Your task to perform on an android device: turn off improve location accuracy Image 0: 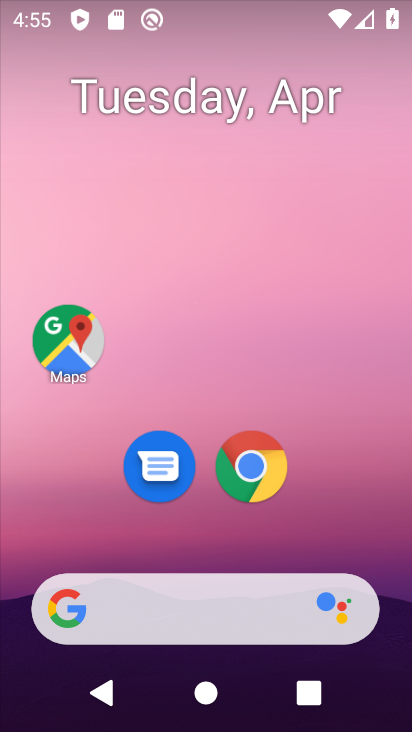
Step 0: drag from (239, 24) to (230, 498)
Your task to perform on an android device: turn off improve location accuracy Image 1: 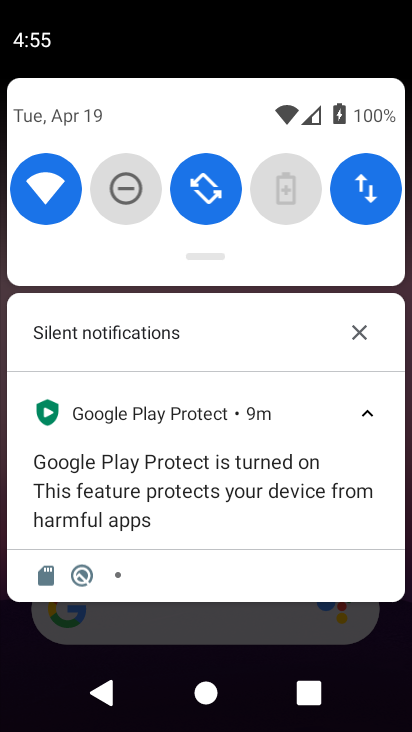
Step 1: drag from (236, 136) to (192, 647)
Your task to perform on an android device: turn off improve location accuracy Image 2: 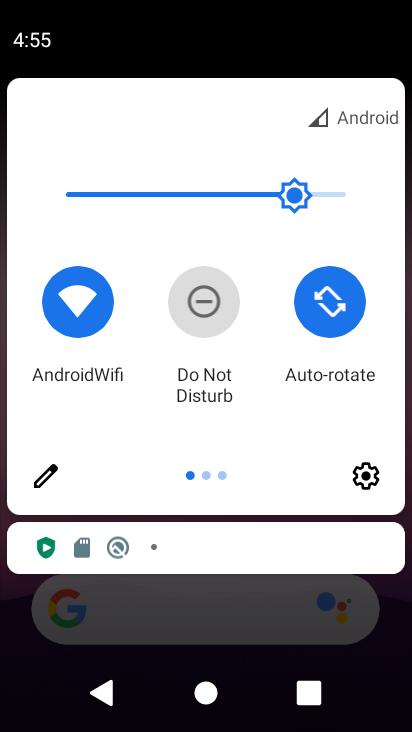
Step 2: click (360, 462)
Your task to perform on an android device: turn off improve location accuracy Image 3: 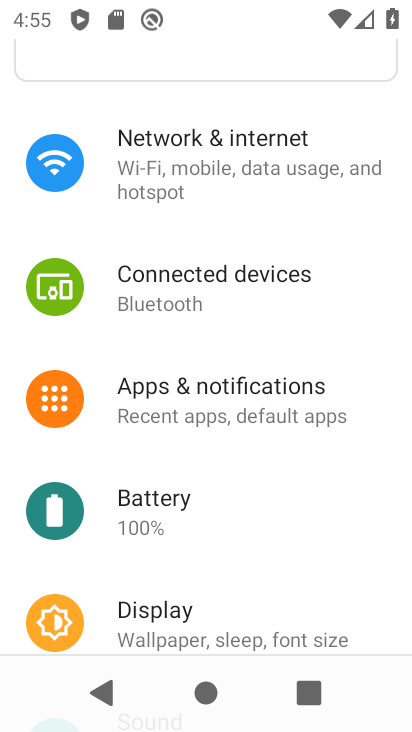
Step 3: drag from (92, 560) to (276, 36)
Your task to perform on an android device: turn off improve location accuracy Image 4: 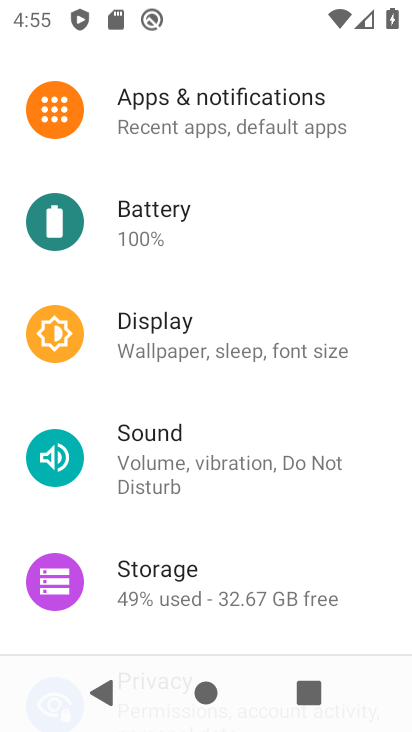
Step 4: drag from (89, 532) to (231, 91)
Your task to perform on an android device: turn off improve location accuracy Image 5: 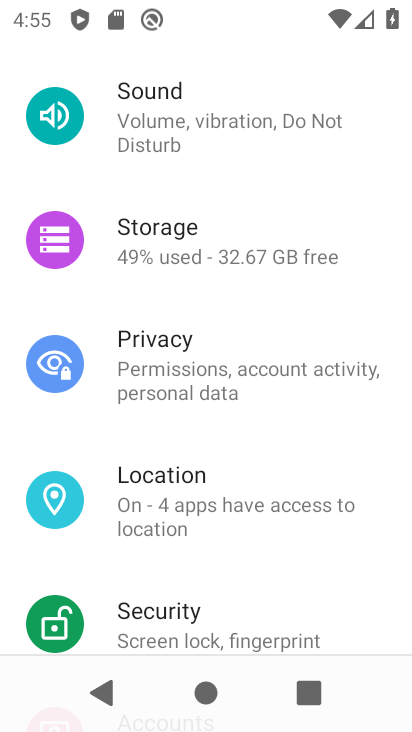
Step 5: click (119, 513)
Your task to perform on an android device: turn off improve location accuracy Image 6: 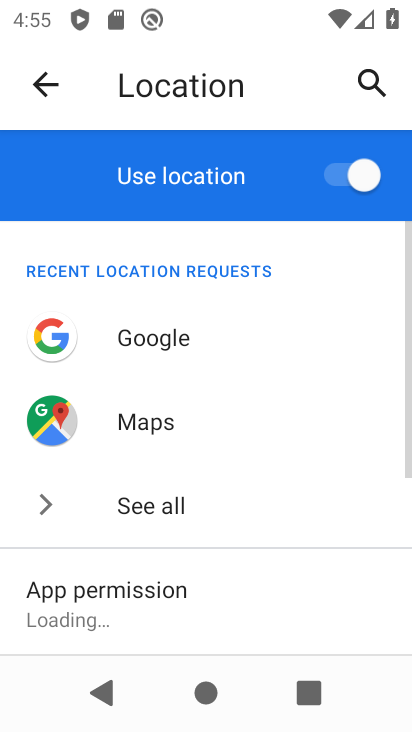
Step 6: drag from (119, 513) to (184, 37)
Your task to perform on an android device: turn off improve location accuracy Image 7: 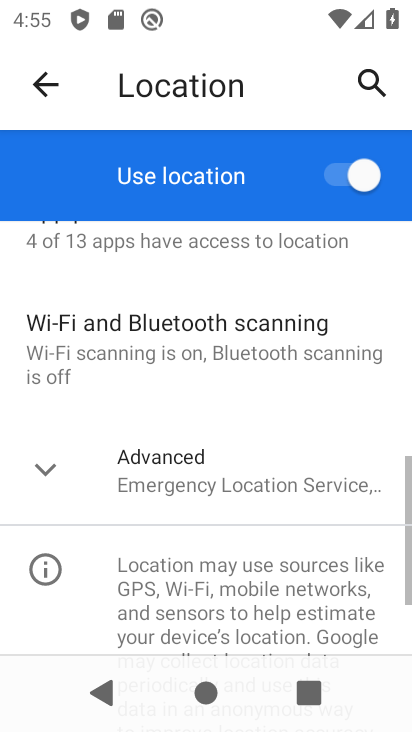
Step 7: click (106, 483)
Your task to perform on an android device: turn off improve location accuracy Image 8: 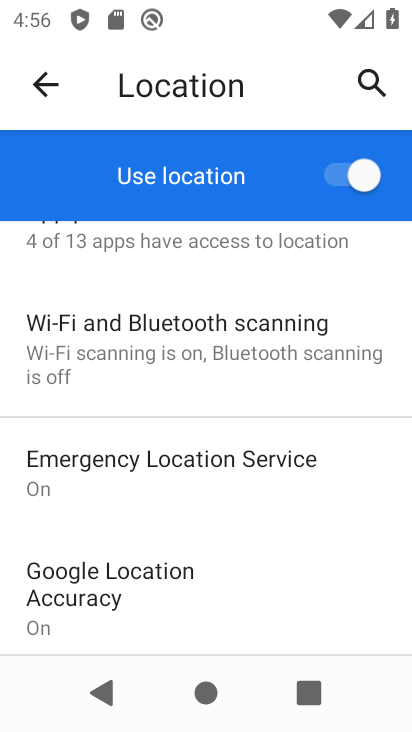
Step 8: click (109, 587)
Your task to perform on an android device: turn off improve location accuracy Image 9: 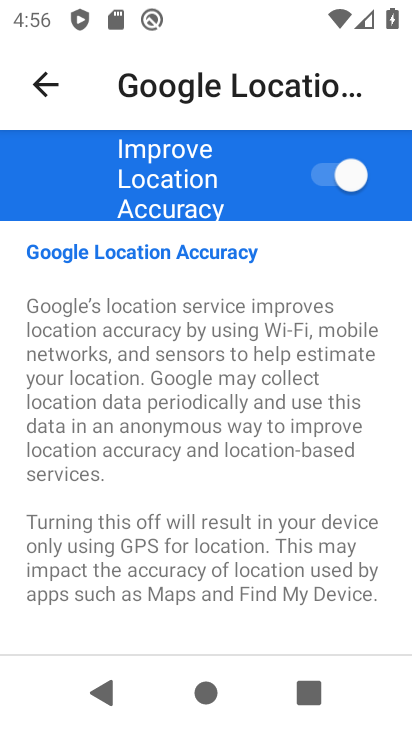
Step 9: click (319, 184)
Your task to perform on an android device: turn off improve location accuracy Image 10: 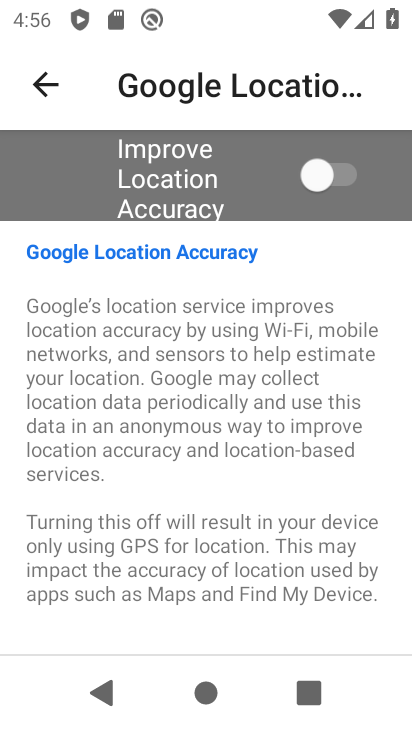
Step 10: task complete